Your task to perform on an android device: open app "Venmo" Image 0: 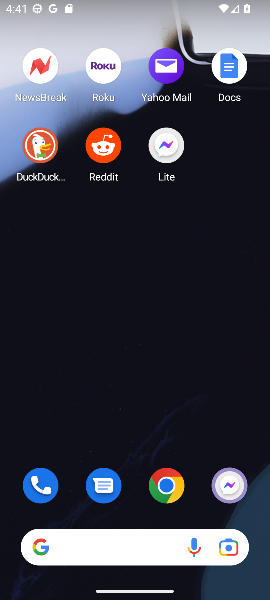
Step 0: drag from (137, 406) to (188, 38)
Your task to perform on an android device: open app "Venmo" Image 1: 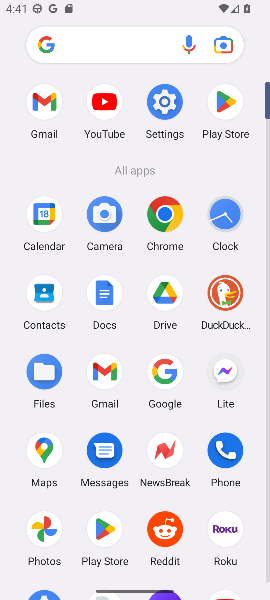
Step 1: click (225, 101)
Your task to perform on an android device: open app "Venmo" Image 2: 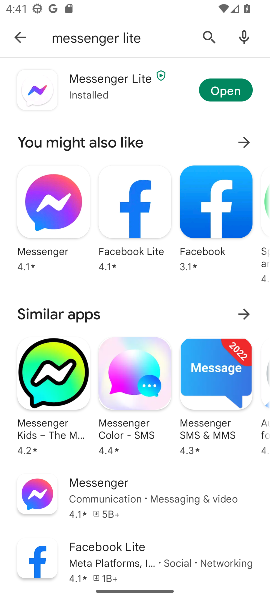
Step 2: click (203, 33)
Your task to perform on an android device: open app "Venmo" Image 3: 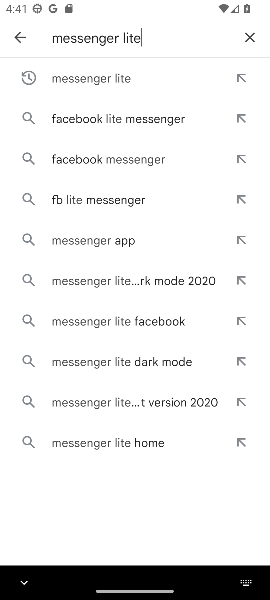
Step 3: click (241, 36)
Your task to perform on an android device: open app "Venmo" Image 4: 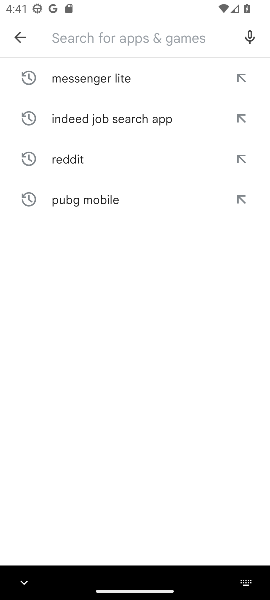
Step 4: click (116, 38)
Your task to perform on an android device: open app "Venmo" Image 5: 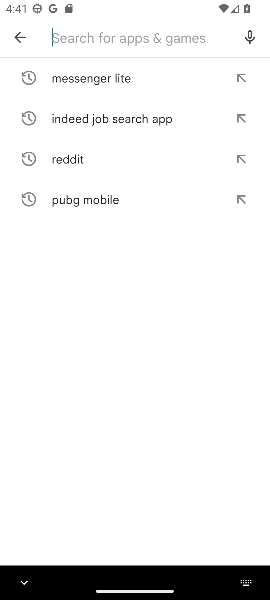
Step 5: type "venmo"
Your task to perform on an android device: open app "Venmo" Image 6: 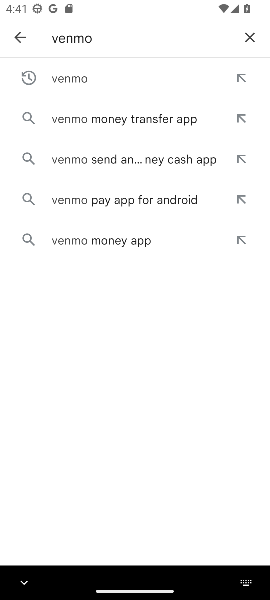
Step 6: click (79, 79)
Your task to perform on an android device: open app "Venmo" Image 7: 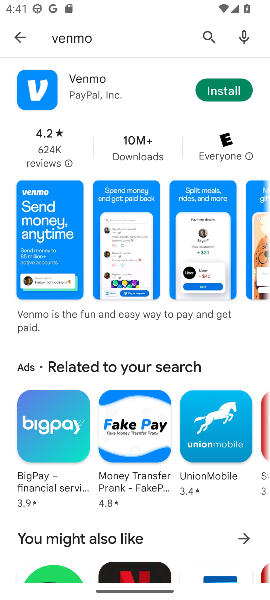
Step 7: task complete